Your task to perform on an android device: all mails in gmail Image 0: 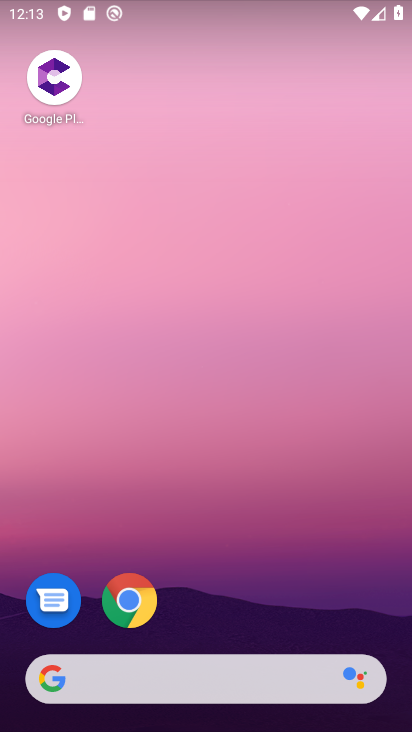
Step 0: drag from (273, 610) to (322, 1)
Your task to perform on an android device: all mails in gmail Image 1: 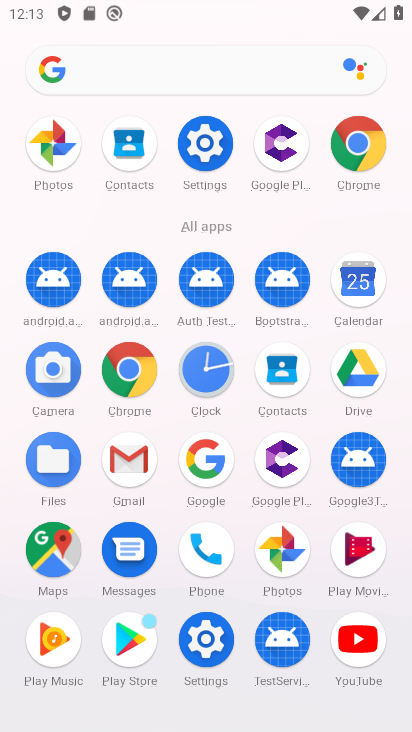
Step 1: click (130, 472)
Your task to perform on an android device: all mails in gmail Image 2: 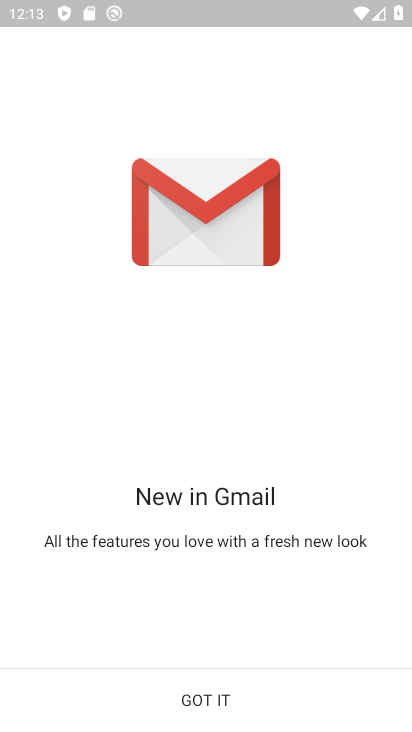
Step 2: click (339, 706)
Your task to perform on an android device: all mails in gmail Image 3: 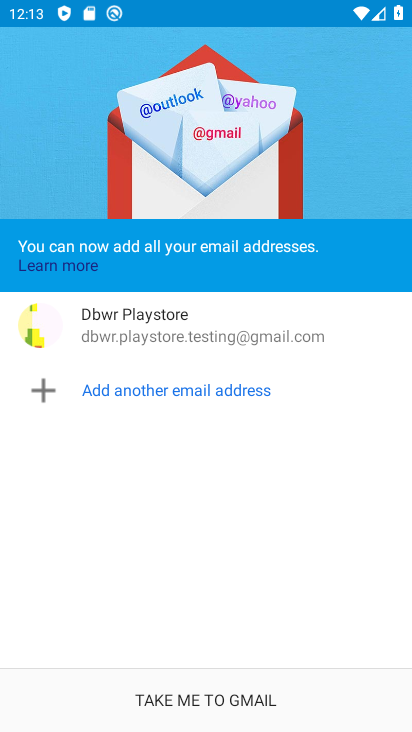
Step 3: click (336, 718)
Your task to perform on an android device: all mails in gmail Image 4: 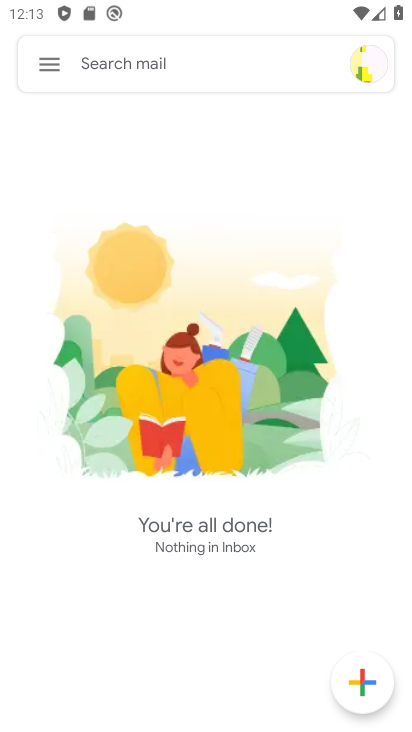
Step 4: click (55, 60)
Your task to perform on an android device: all mails in gmail Image 5: 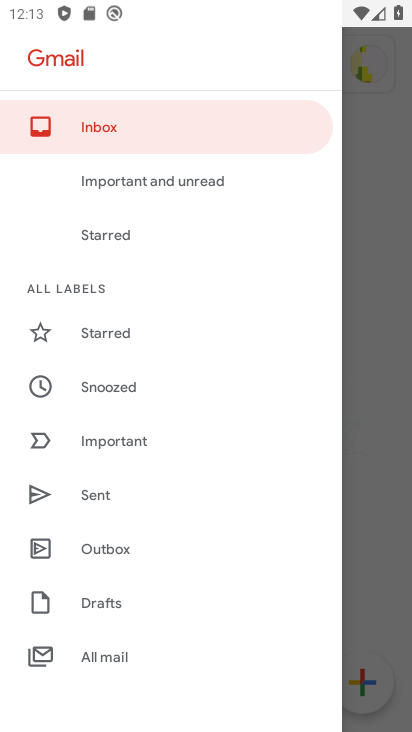
Step 5: click (118, 645)
Your task to perform on an android device: all mails in gmail Image 6: 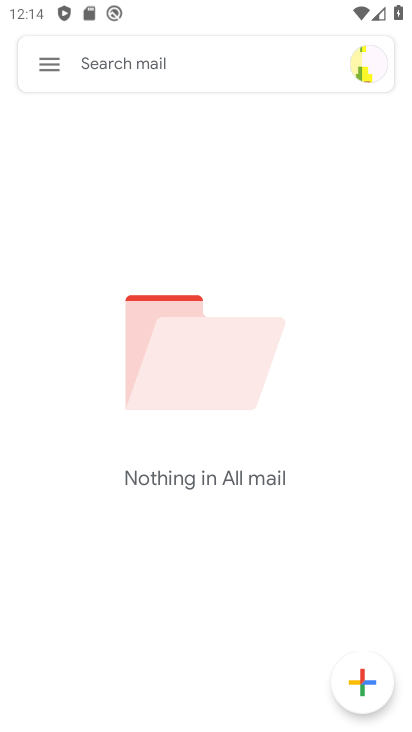
Step 6: task complete